Your task to perform on an android device: Open notification settings Image 0: 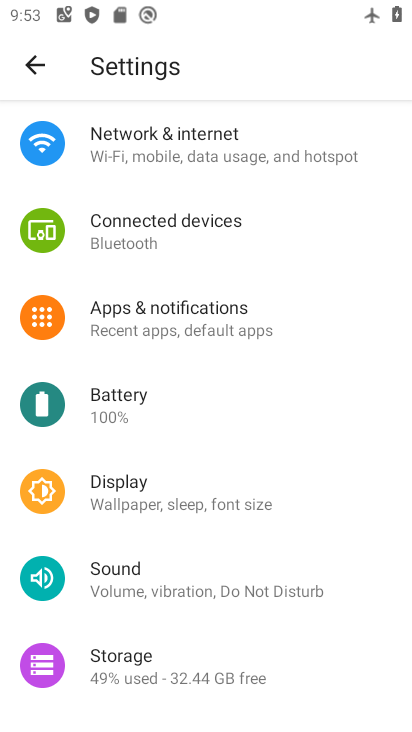
Step 0: click (173, 330)
Your task to perform on an android device: Open notification settings Image 1: 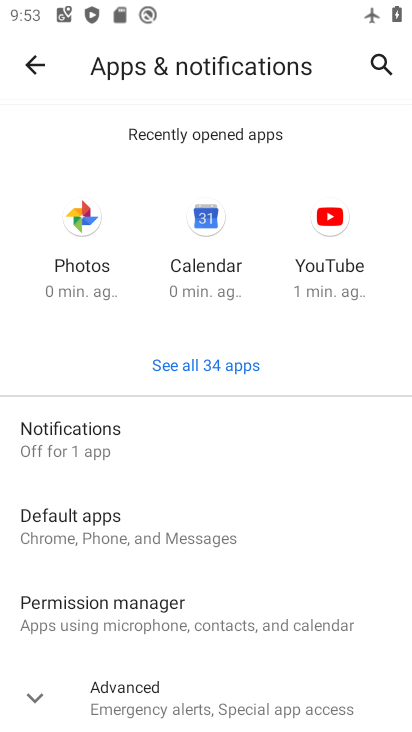
Step 1: click (76, 449)
Your task to perform on an android device: Open notification settings Image 2: 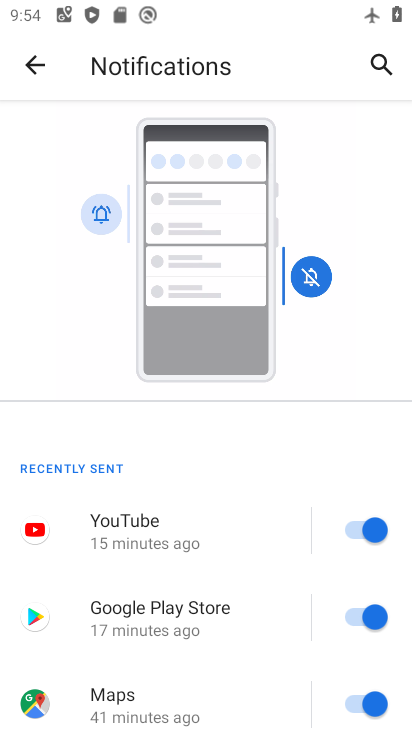
Step 2: task complete